Your task to perform on an android device: toggle improve location accuracy Image 0: 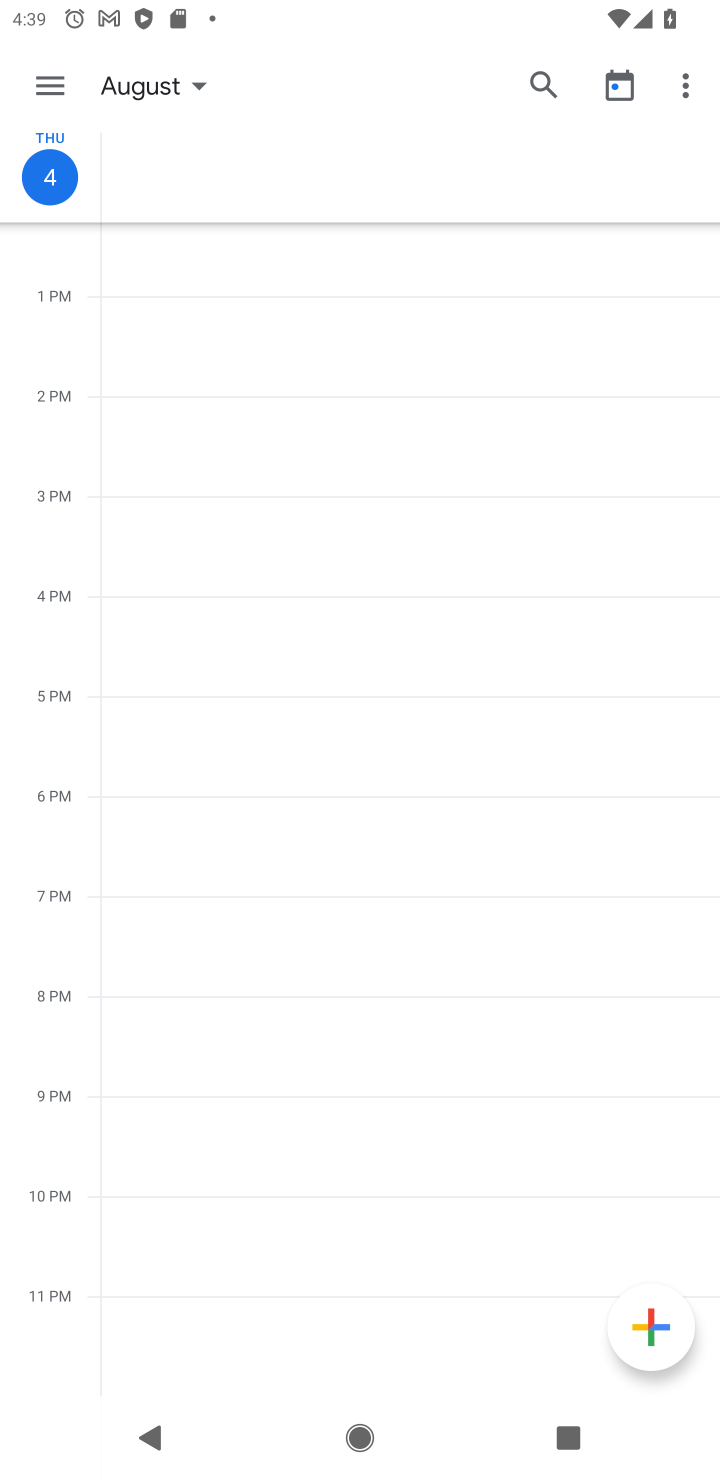
Step 0: press home button
Your task to perform on an android device: toggle improve location accuracy Image 1: 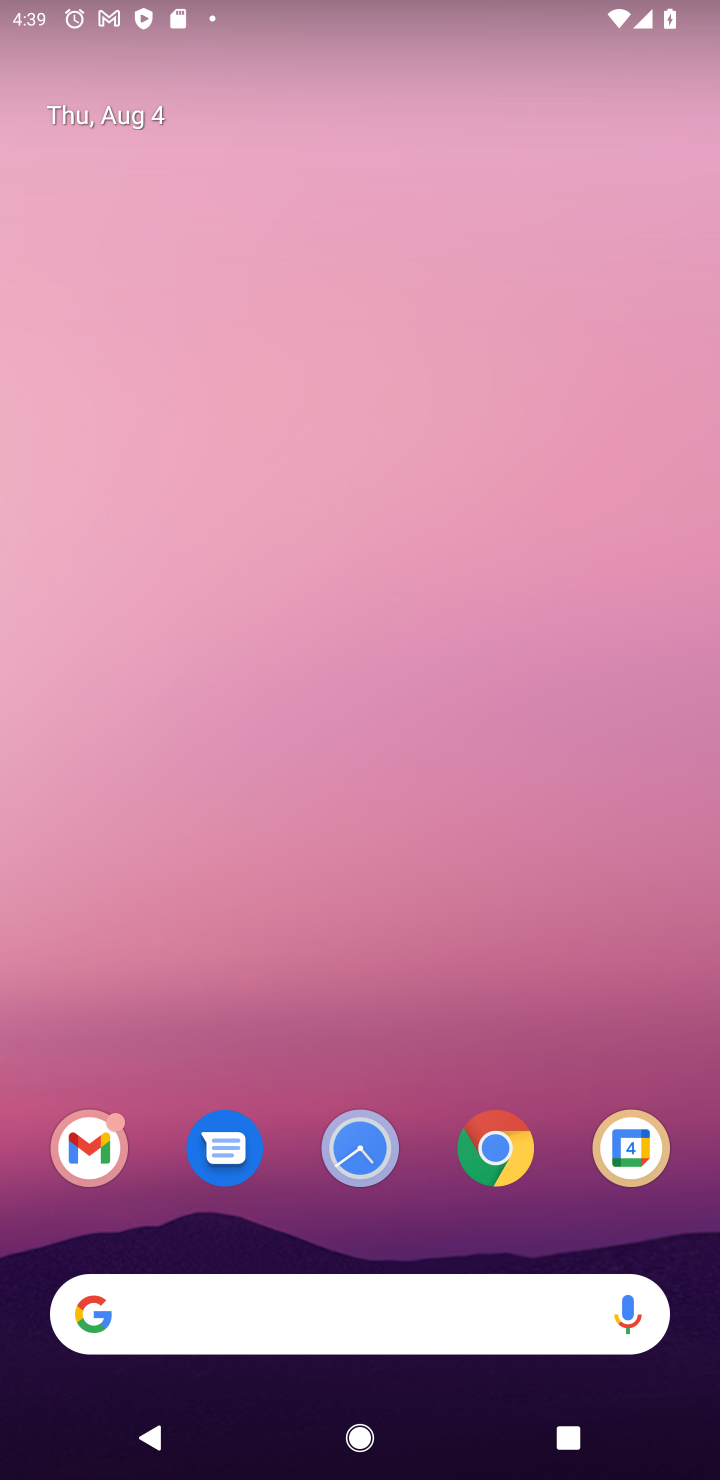
Step 1: drag from (539, 1234) to (508, 460)
Your task to perform on an android device: toggle improve location accuracy Image 2: 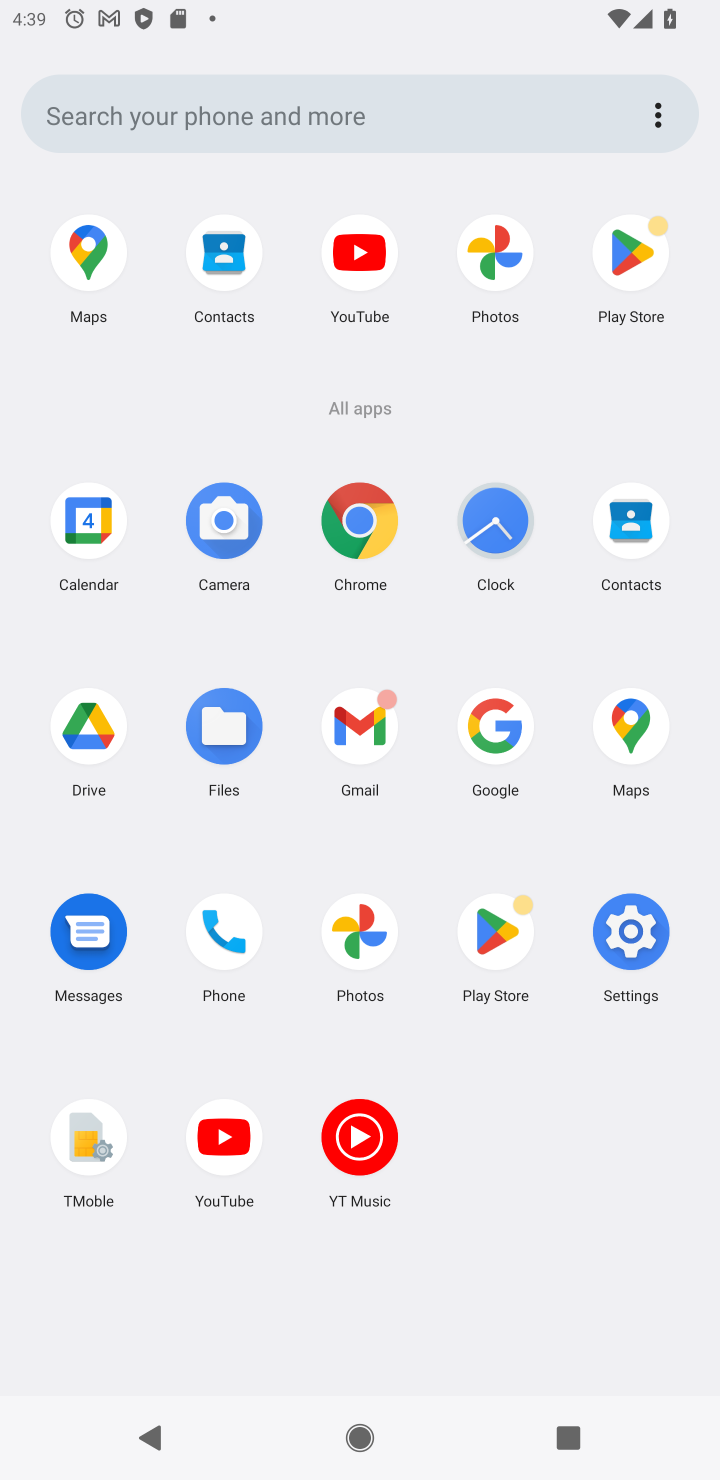
Step 2: click (626, 929)
Your task to perform on an android device: toggle improve location accuracy Image 3: 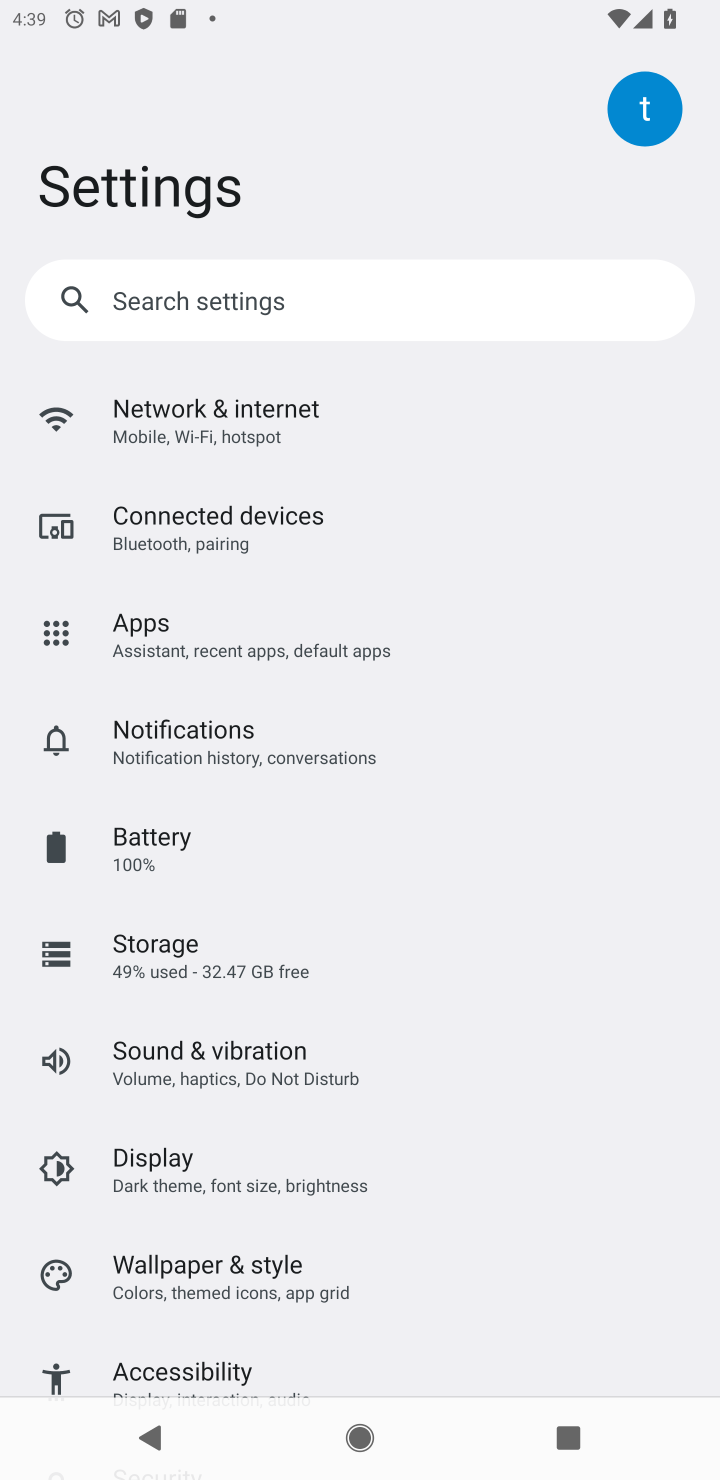
Step 3: drag from (385, 1258) to (388, 663)
Your task to perform on an android device: toggle improve location accuracy Image 4: 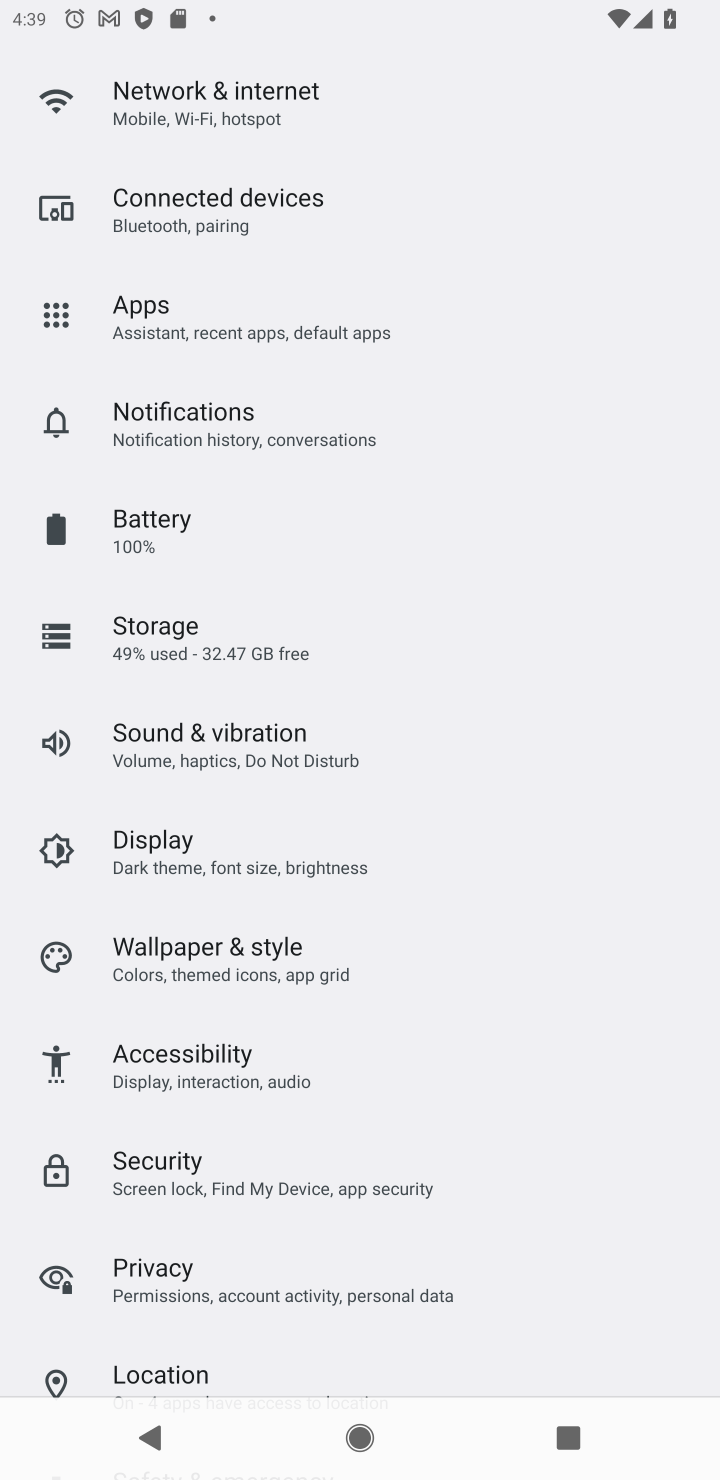
Step 4: drag from (469, 1050) to (462, 647)
Your task to perform on an android device: toggle improve location accuracy Image 5: 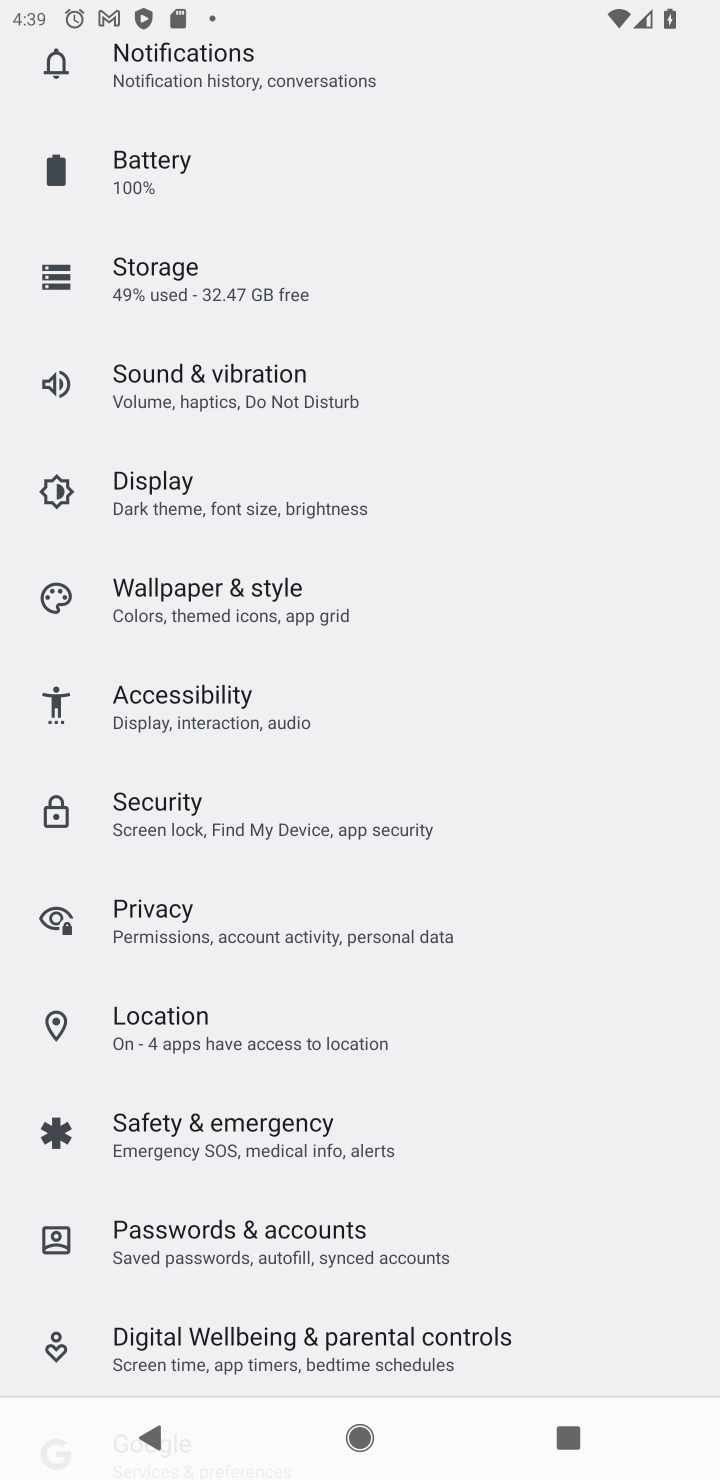
Step 5: click (153, 1018)
Your task to perform on an android device: toggle improve location accuracy Image 6: 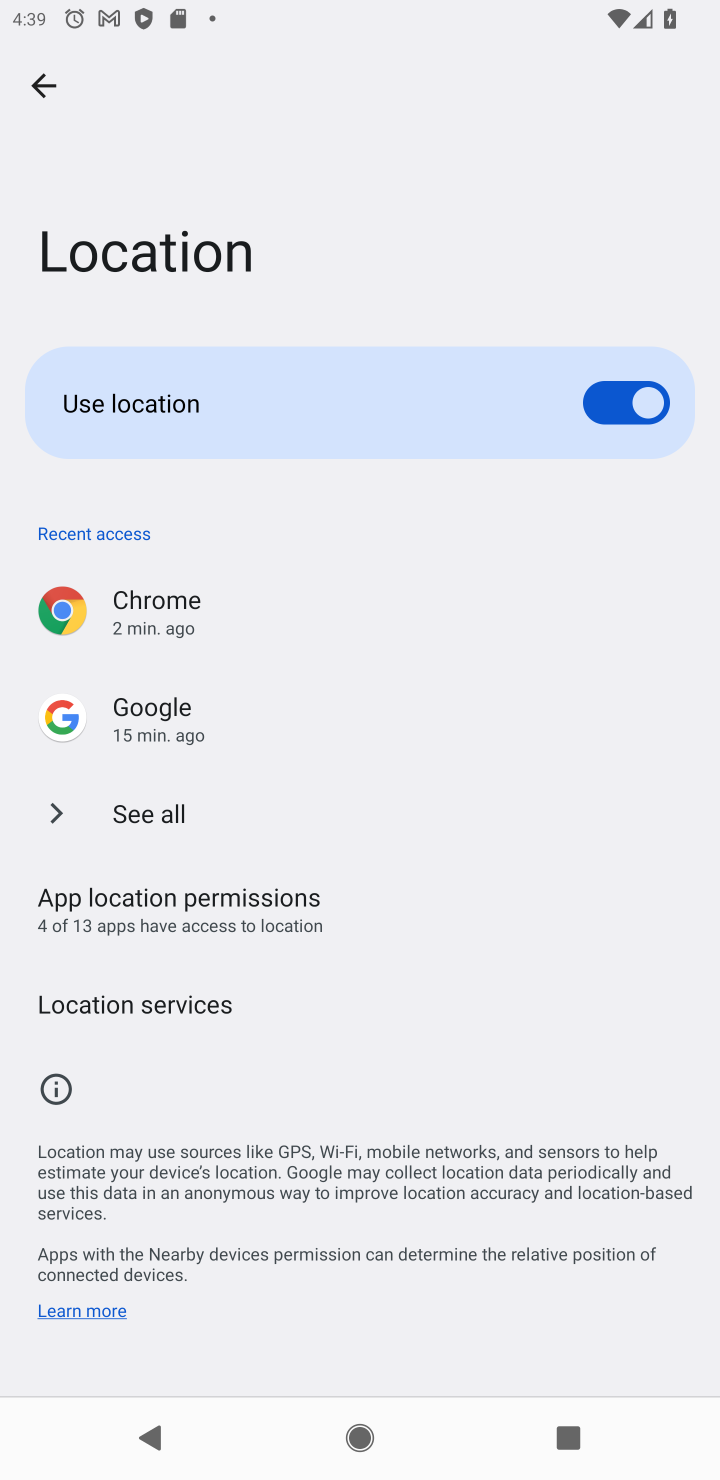
Step 6: click (111, 1000)
Your task to perform on an android device: toggle improve location accuracy Image 7: 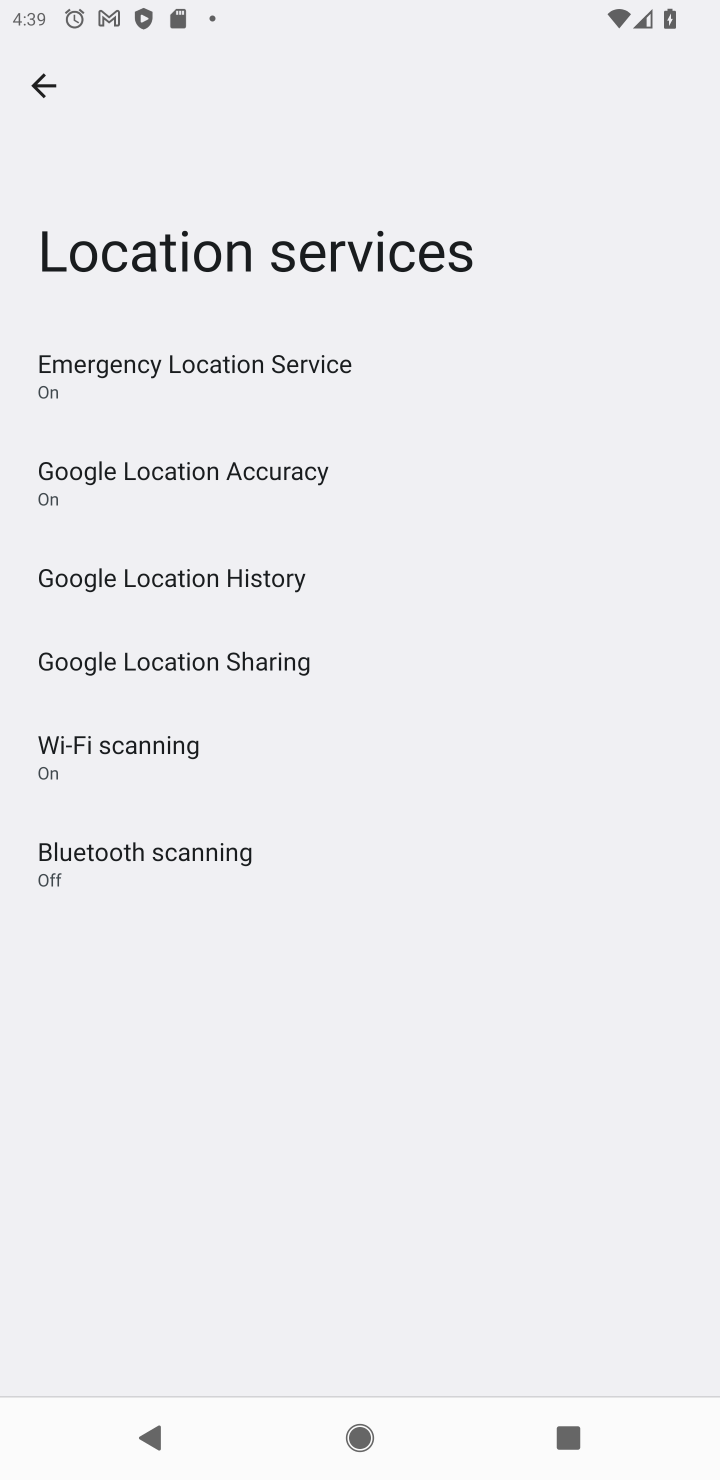
Step 7: click (185, 467)
Your task to perform on an android device: toggle improve location accuracy Image 8: 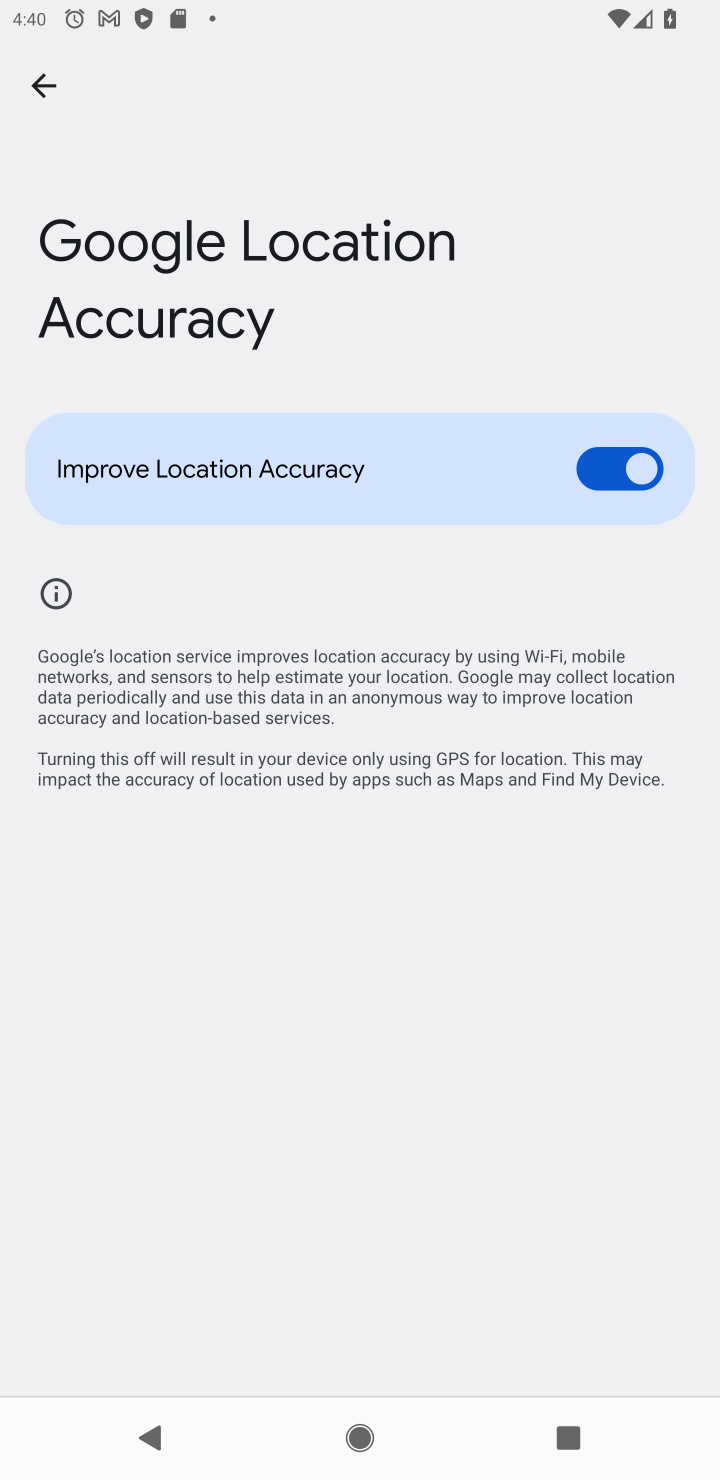
Step 8: click (586, 465)
Your task to perform on an android device: toggle improve location accuracy Image 9: 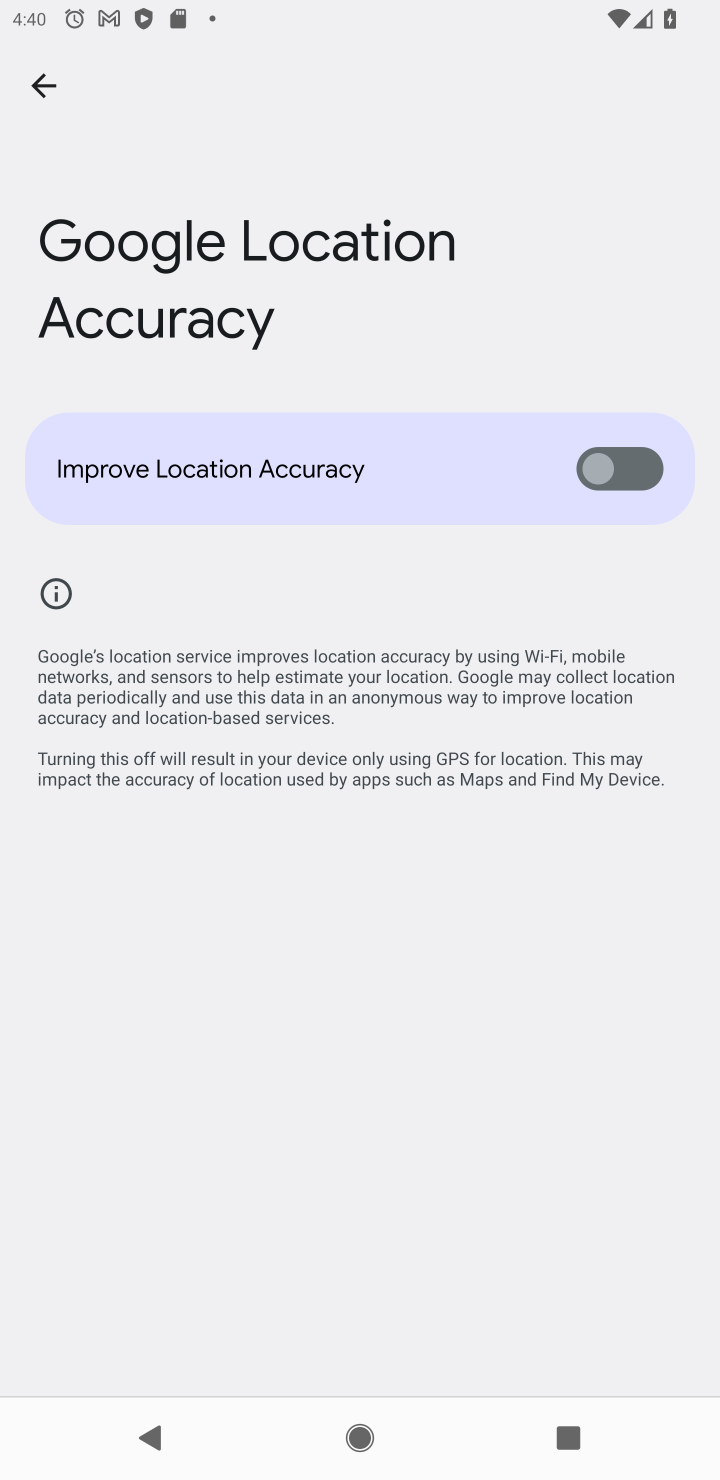
Step 9: task complete